Your task to perform on an android device: Clear all items from cart on costco. Search for "razer blade" on costco, select the first entry, and add it to the cart. Image 0: 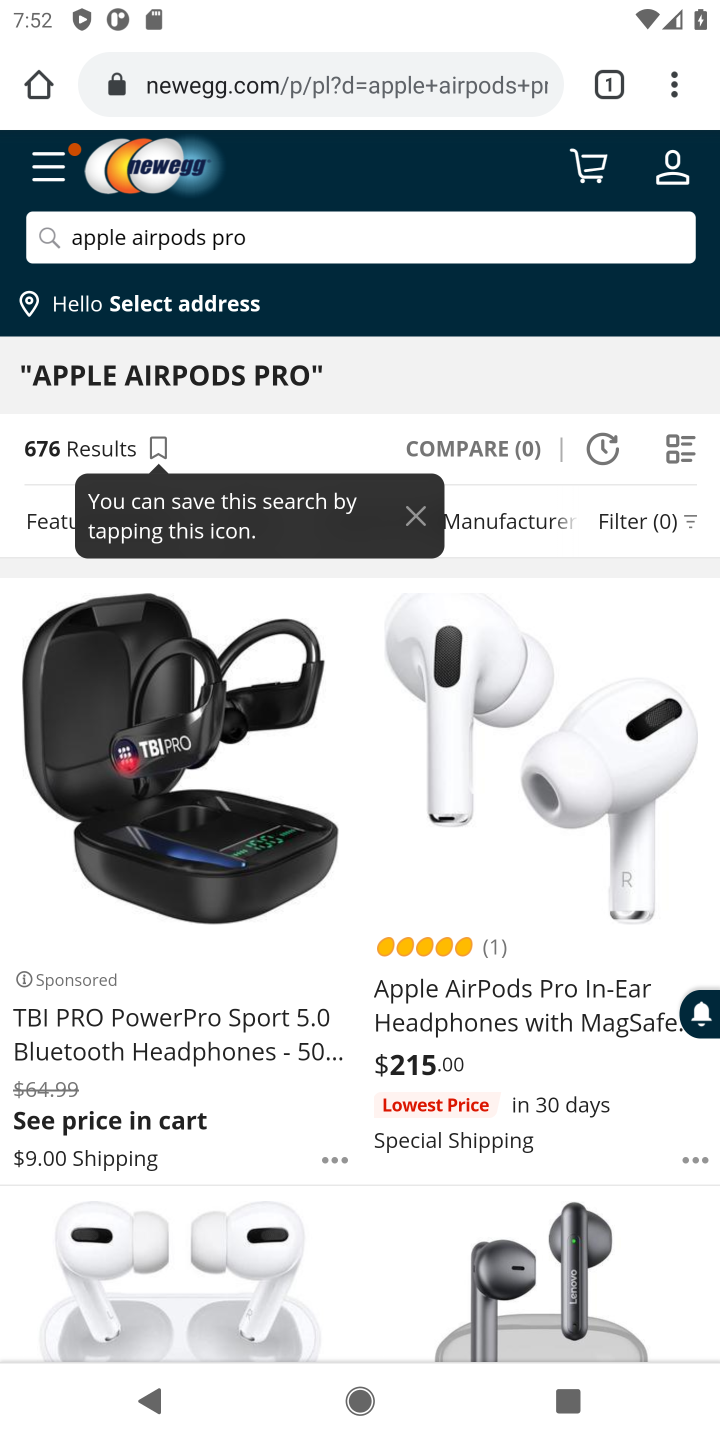
Step 0: click (299, 94)
Your task to perform on an android device: Clear all items from cart on costco. Search for "razer blade" on costco, select the first entry, and add it to the cart. Image 1: 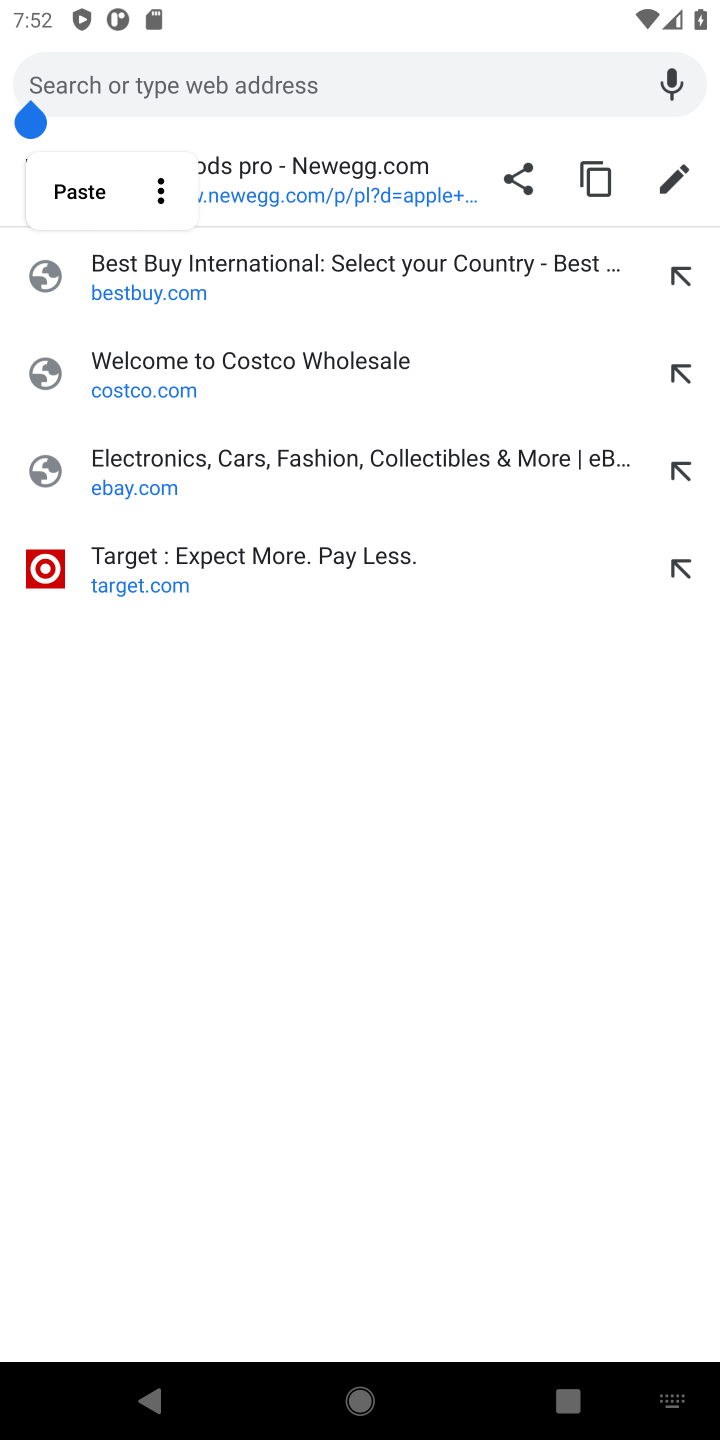
Step 1: click (151, 380)
Your task to perform on an android device: Clear all items from cart on costco. Search for "razer blade" on costco, select the first entry, and add it to the cart. Image 2: 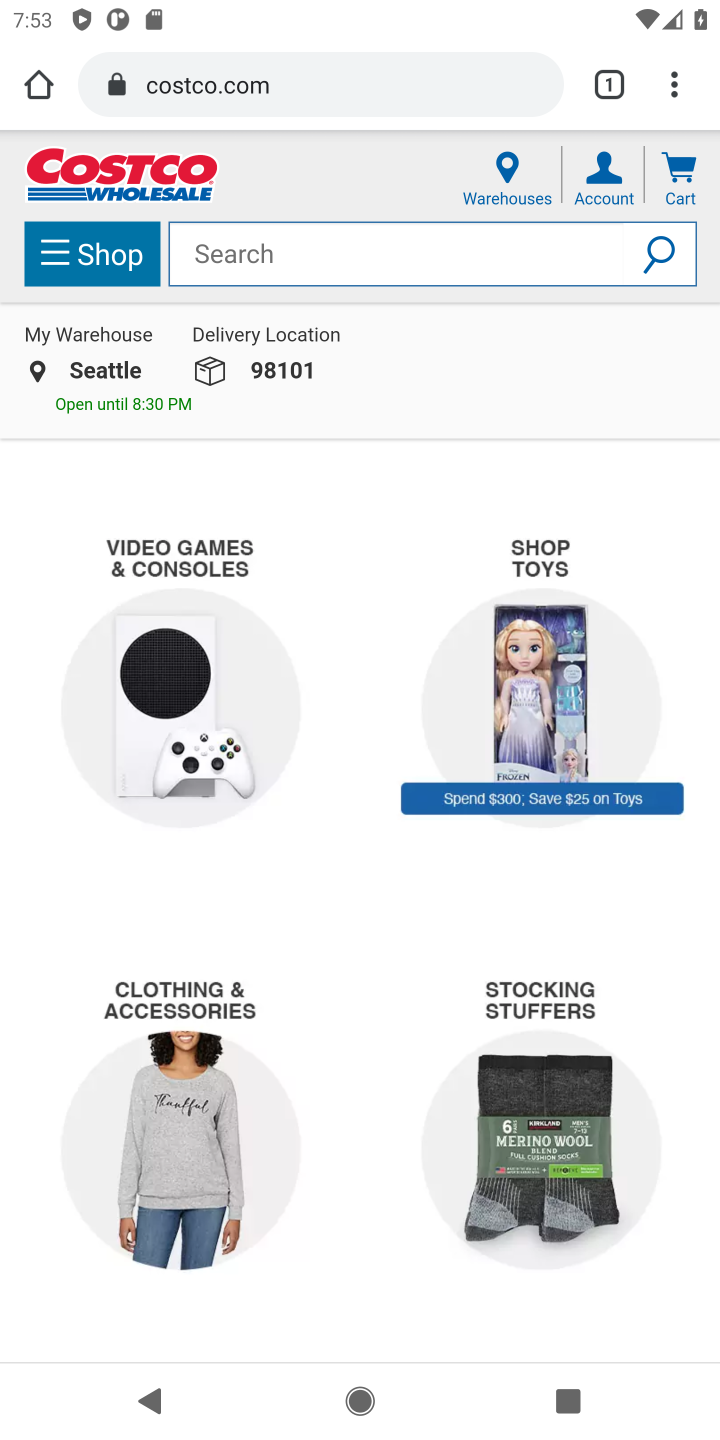
Step 2: click (697, 165)
Your task to perform on an android device: Clear all items from cart on costco. Search for "razer blade" on costco, select the first entry, and add it to the cart. Image 3: 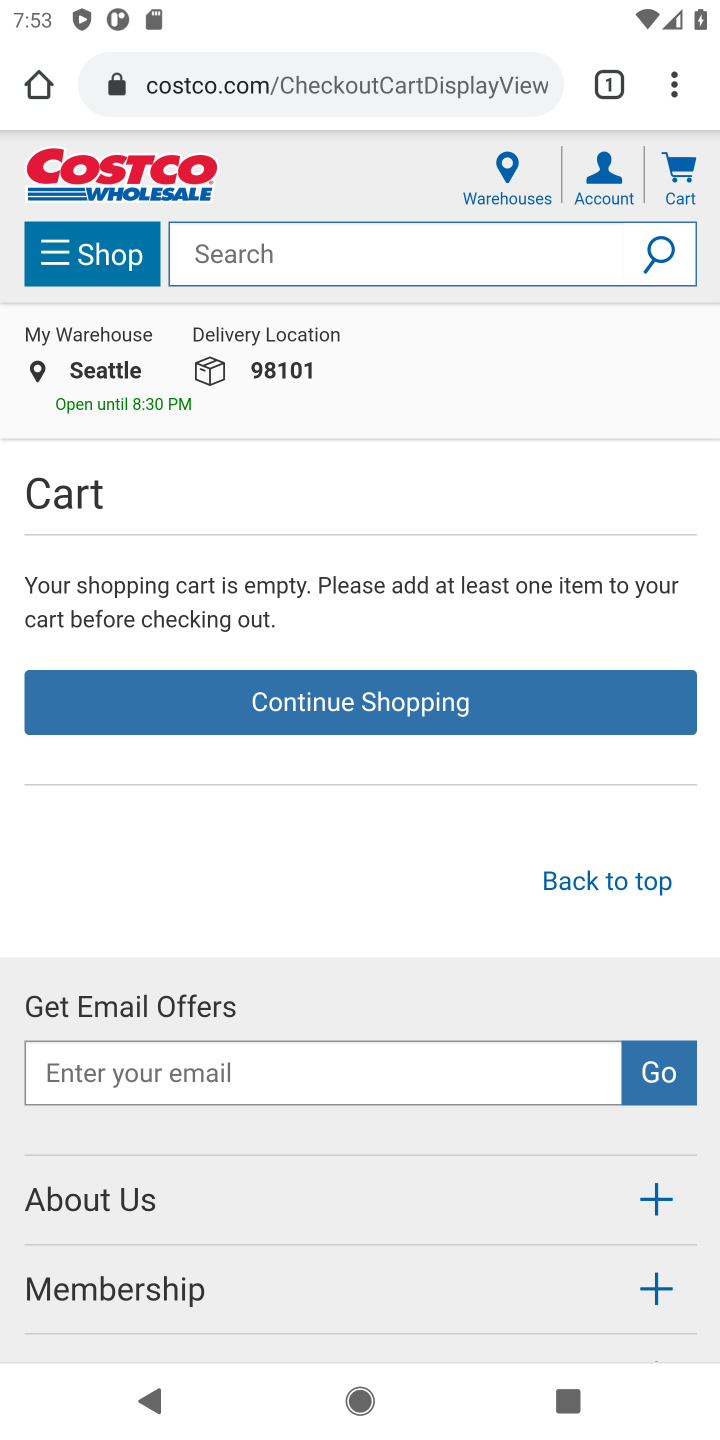
Step 3: click (221, 257)
Your task to perform on an android device: Clear all items from cart on costco. Search for "razer blade" on costco, select the first entry, and add it to the cart. Image 4: 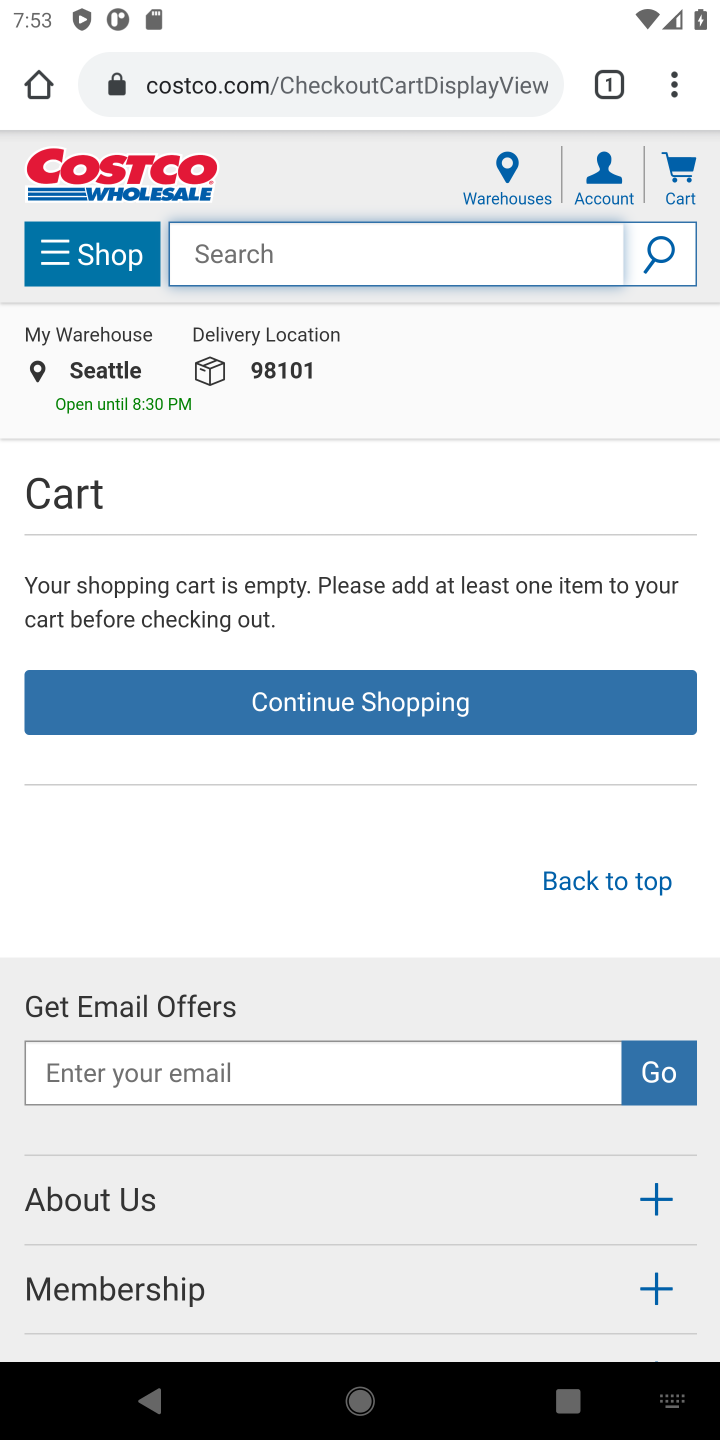
Step 4: type "razer blade"
Your task to perform on an android device: Clear all items from cart on costco. Search for "razer blade" on costco, select the first entry, and add it to the cart. Image 5: 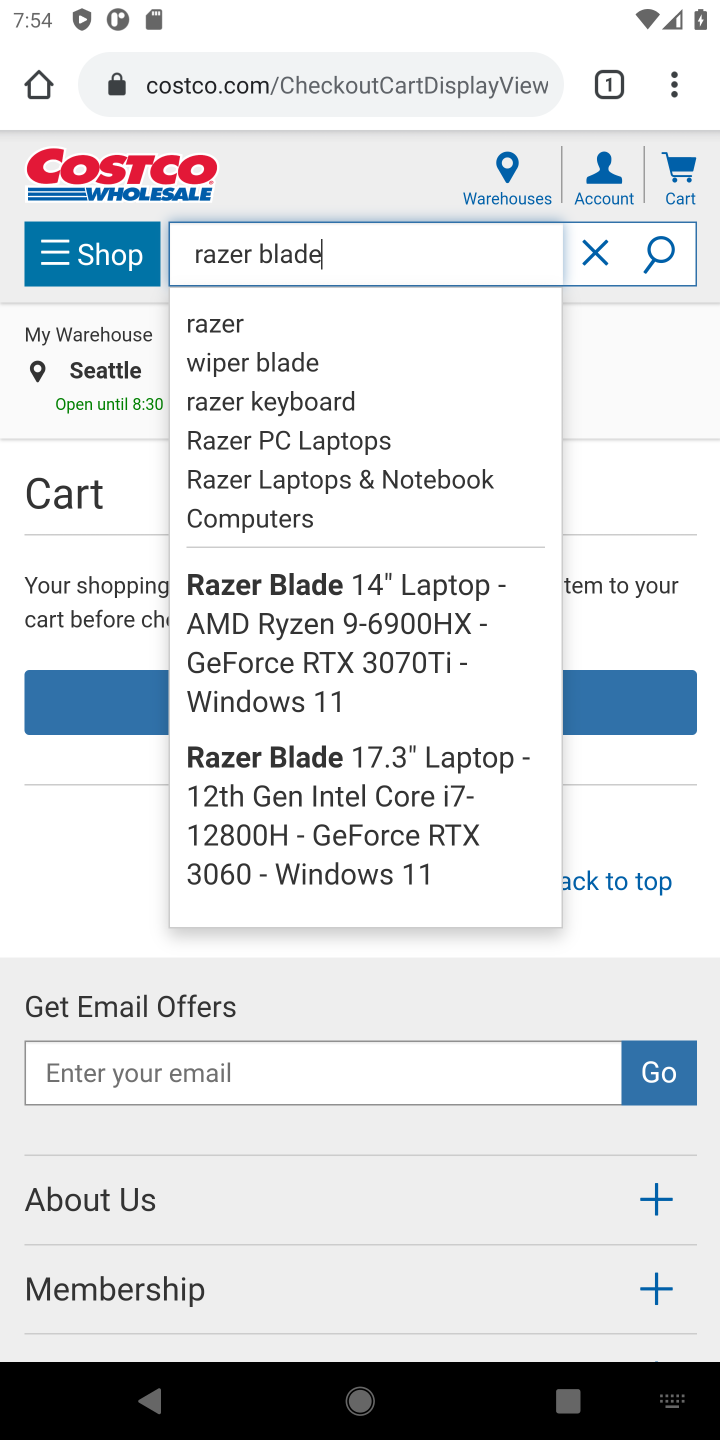
Step 5: click (654, 260)
Your task to perform on an android device: Clear all items from cart on costco. Search for "razer blade" on costco, select the first entry, and add it to the cart. Image 6: 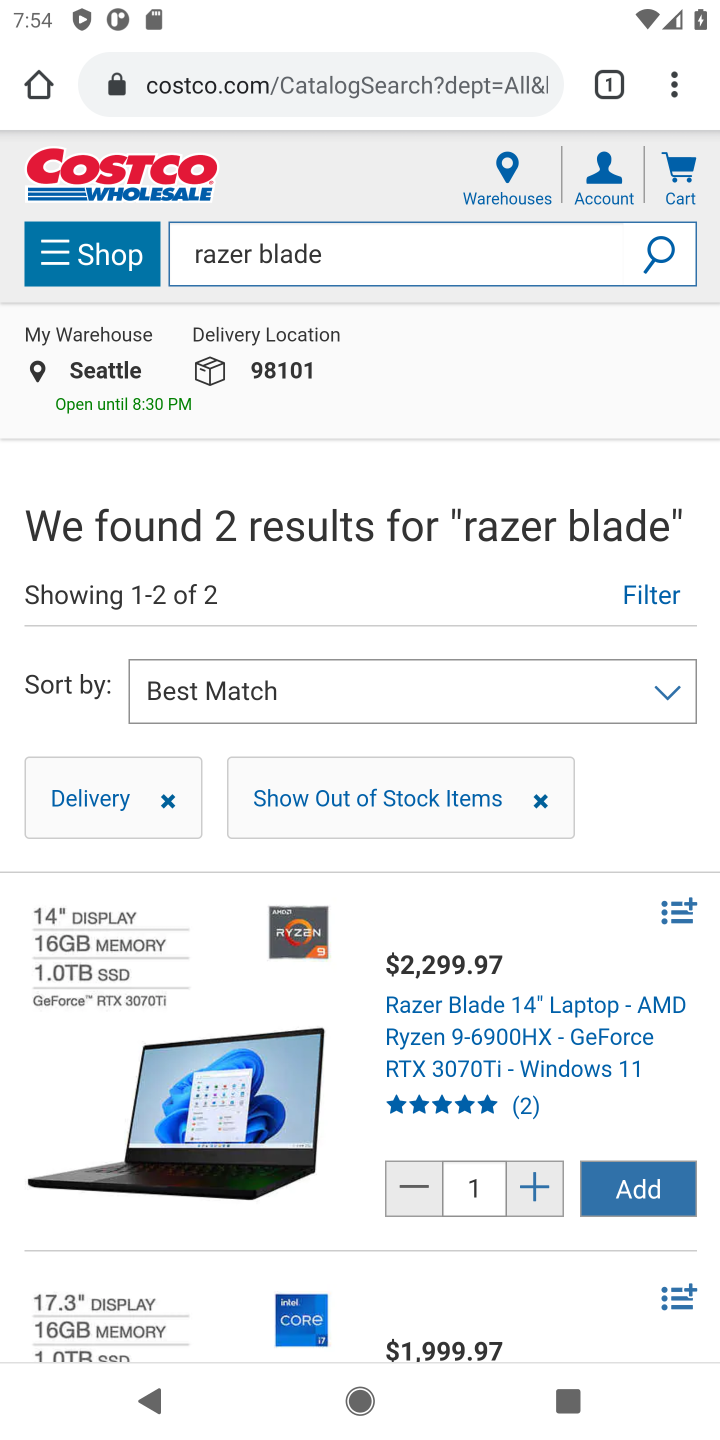
Step 6: click (649, 1198)
Your task to perform on an android device: Clear all items from cart on costco. Search for "razer blade" on costco, select the first entry, and add it to the cart. Image 7: 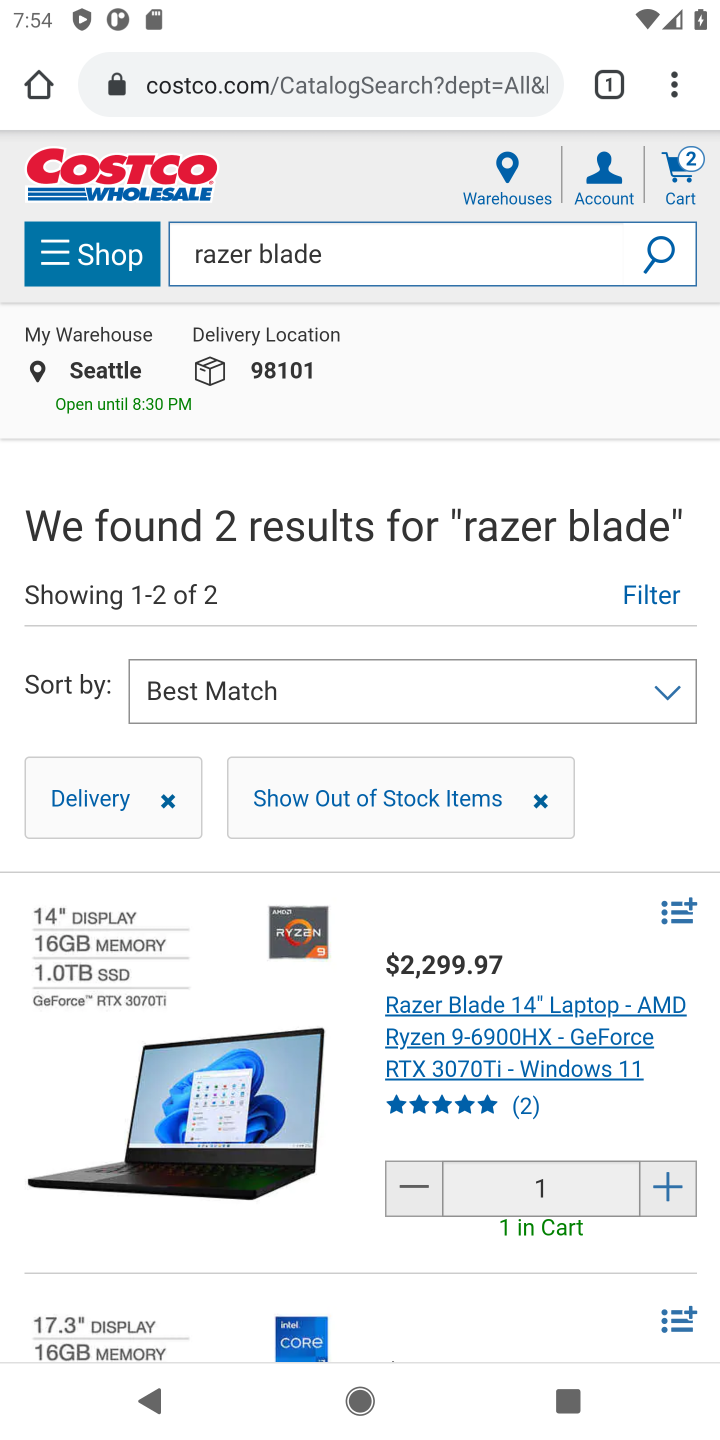
Step 7: task complete